Your task to perform on an android device: Go to Wikipedia Image 0: 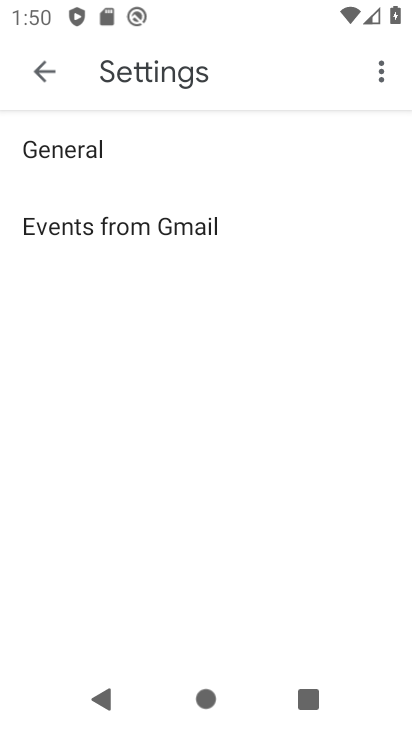
Step 0: press home button
Your task to perform on an android device: Go to Wikipedia Image 1: 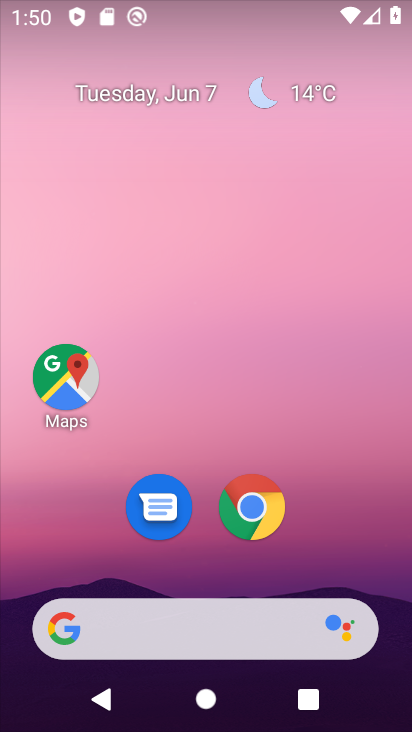
Step 1: click (246, 503)
Your task to perform on an android device: Go to Wikipedia Image 2: 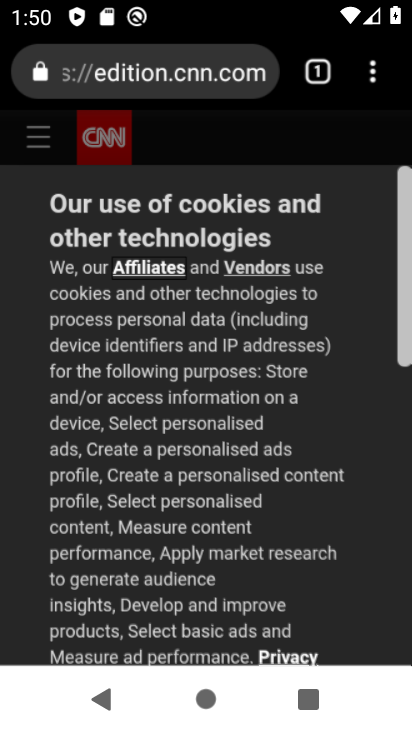
Step 2: click (219, 72)
Your task to perform on an android device: Go to Wikipedia Image 3: 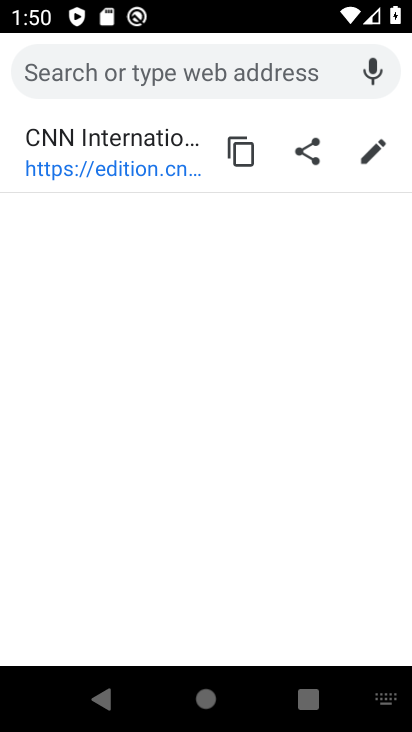
Step 3: type "wikipedia"
Your task to perform on an android device: Go to Wikipedia Image 4: 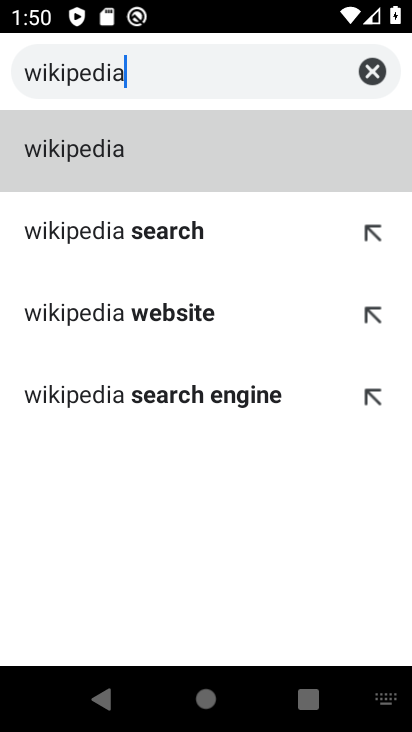
Step 4: click (109, 140)
Your task to perform on an android device: Go to Wikipedia Image 5: 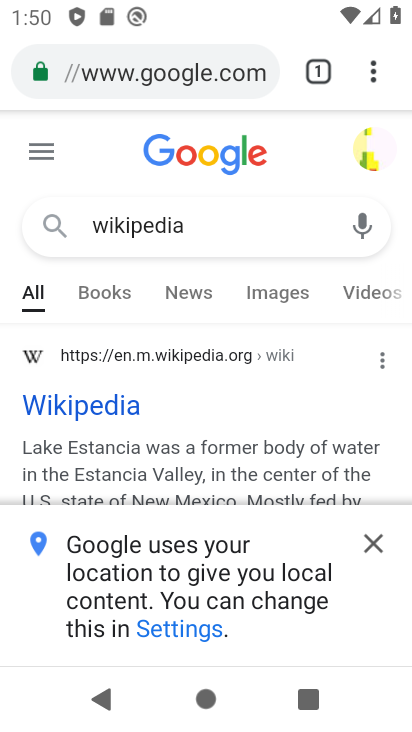
Step 5: click (121, 411)
Your task to perform on an android device: Go to Wikipedia Image 6: 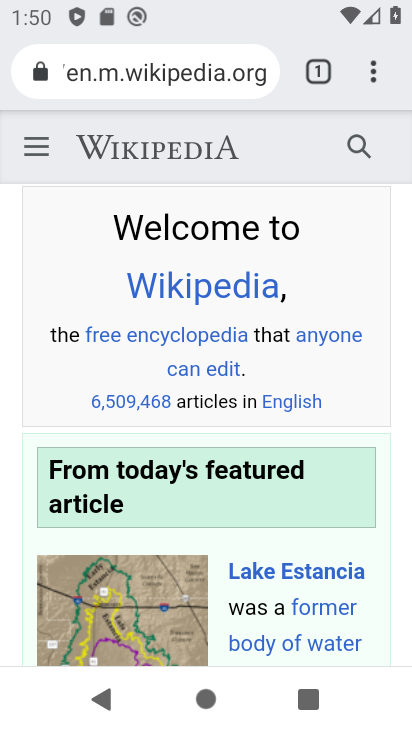
Step 6: task complete